Your task to perform on an android device: turn off notifications settings in the gmail app Image 0: 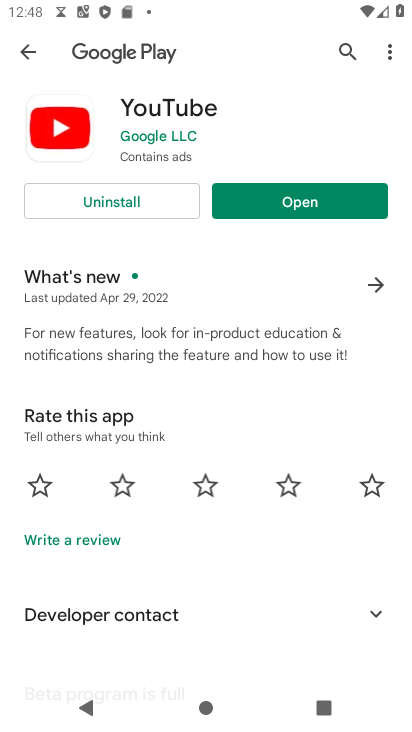
Step 0: press home button
Your task to perform on an android device: turn off notifications settings in the gmail app Image 1: 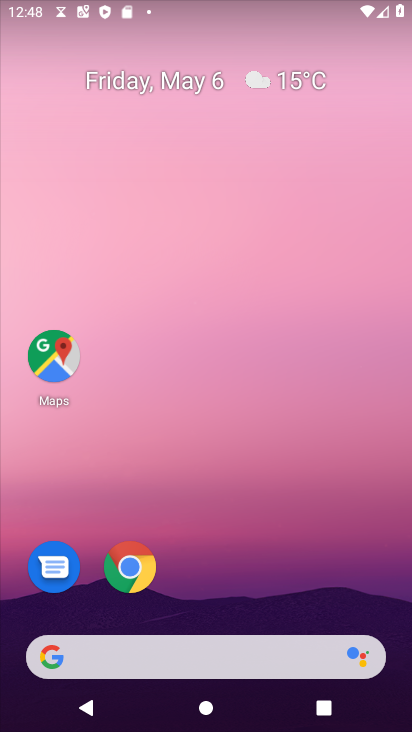
Step 1: drag from (355, 574) to (396, 114)
Your task to perform on an android device: turn off notifications settings in the gmail app Image 2: 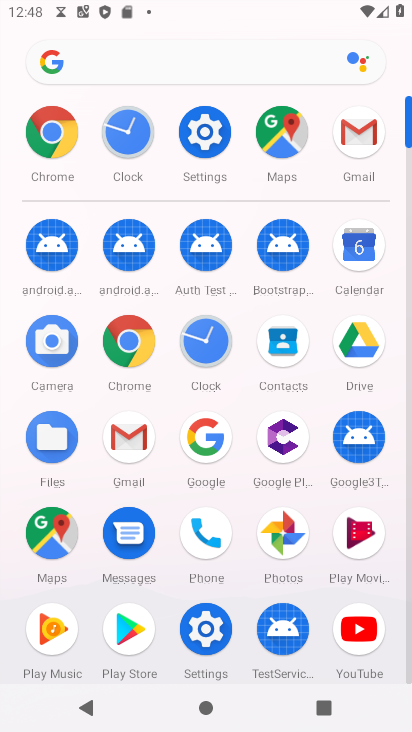
Step 2: click (356, 137)
Your task to perform on an android device: turn off notifications settings in the gmail app Image 3: 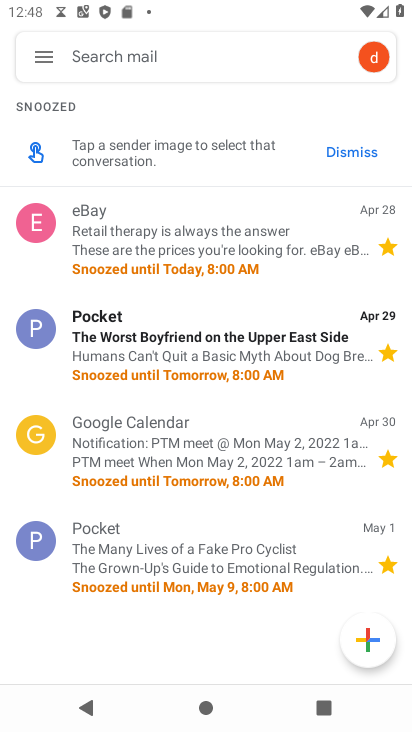
Step 3: click (45, 50)
Your task to perform on an android device: turn off notifications settings in the gmail app Image 4: 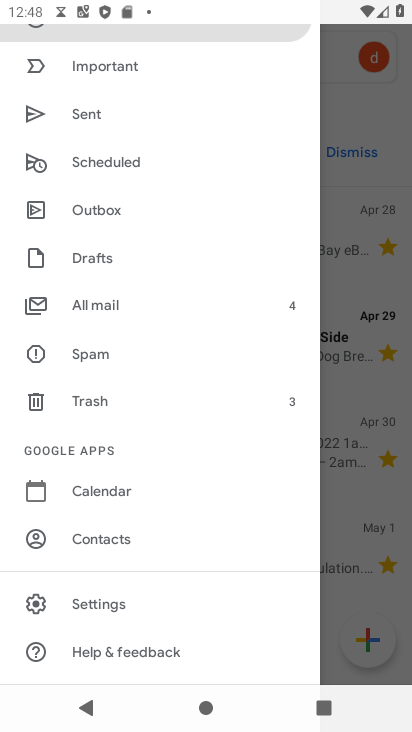
Step 4: click (103, 609)
Your task to perform on an android device: turn off notifications settings in the gmail app Image 5: 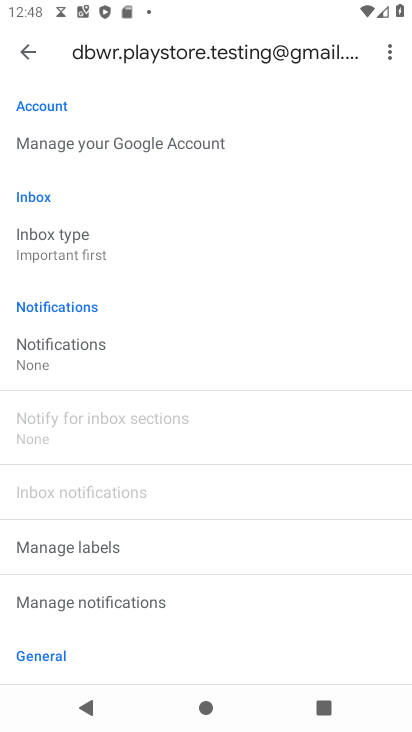
Step 5: click (58, 358)
Your task to perform on an android device: turn off notifications settings in the gmail app Image 6: 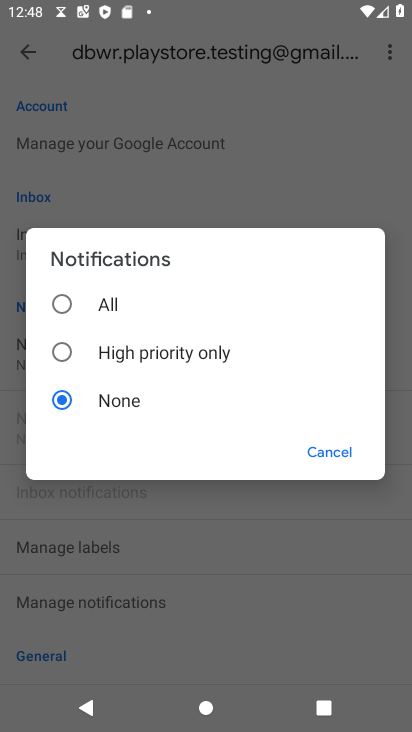
Step 6: task complete